Your task to perform on an android device: all mails in gmail Image 0: 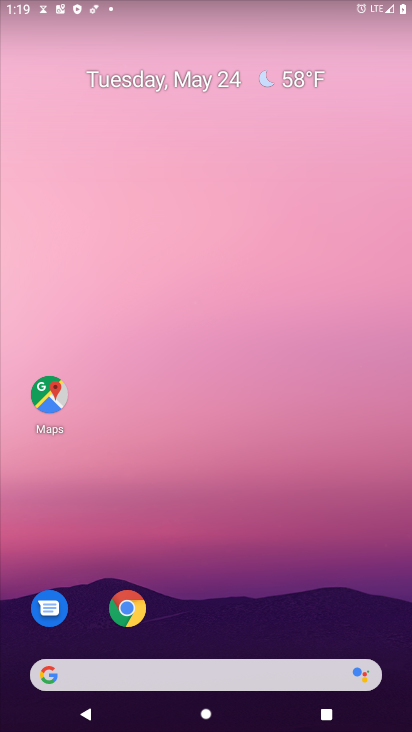
Step 0: press home button
Your task to perform on an android device: all mails in gmail Image 1: 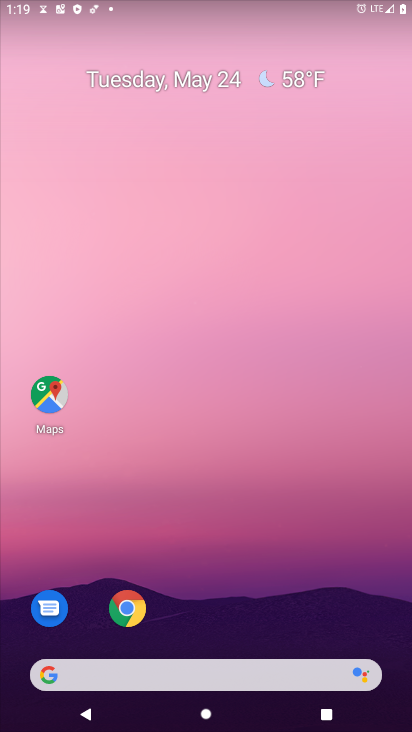
Step 1: drag from (246, 687) to (321, 209)
Your task to perform on an android device: all mails in gmail Image 2: 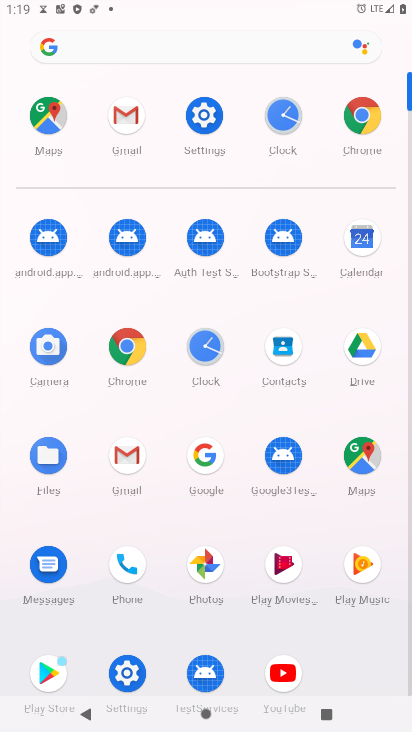
Step 2: click (108, 104)
Your task to perform on an android device: all mails in gmail Image 3: 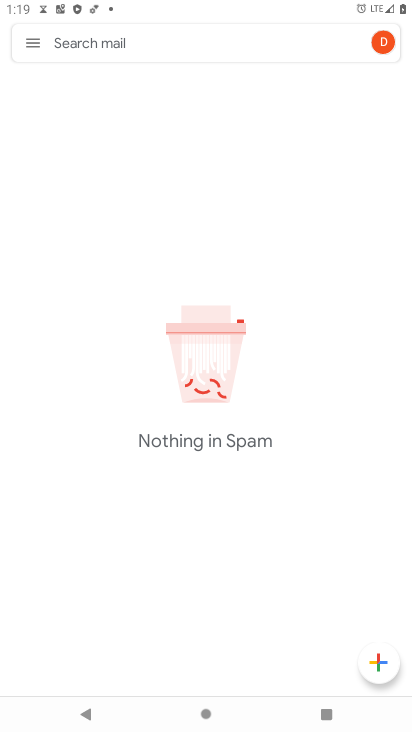
Step 3: click (31, 42)
Your task to perform on an android device: all mails in gmail Image 4: 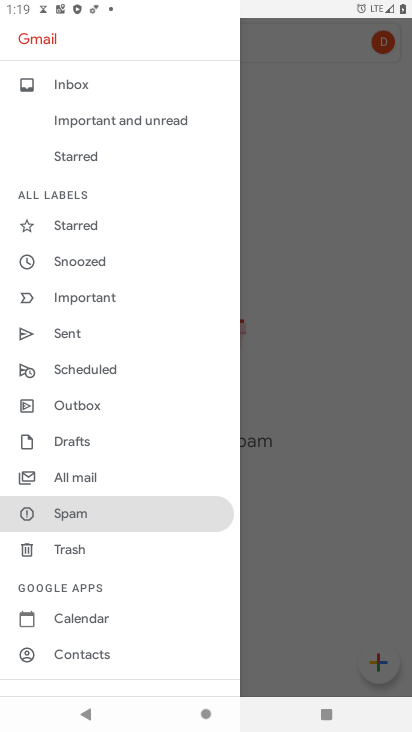
Step 4: click (92, 476)
Your task to perform on an android device: all mails in gmail Image 5: 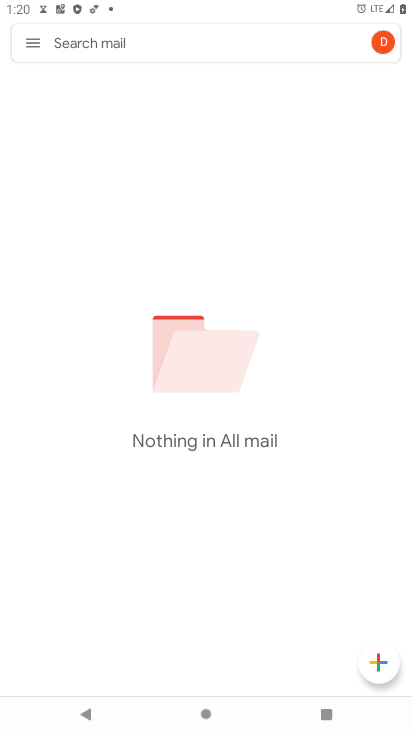
Step 5: task complete